Your task to perform on an android device: Do I have any events tomorrow? Image 0: 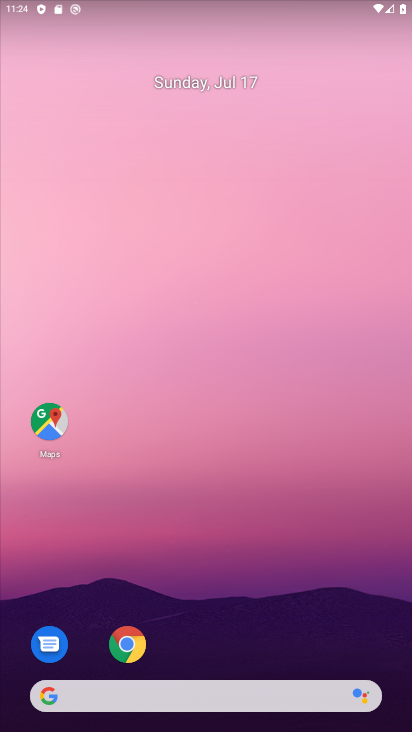
Step 0: drag from (392, 622) to (341, 77)
Your task to perform on an android device: Do I have any events tomorrow? Image 1: 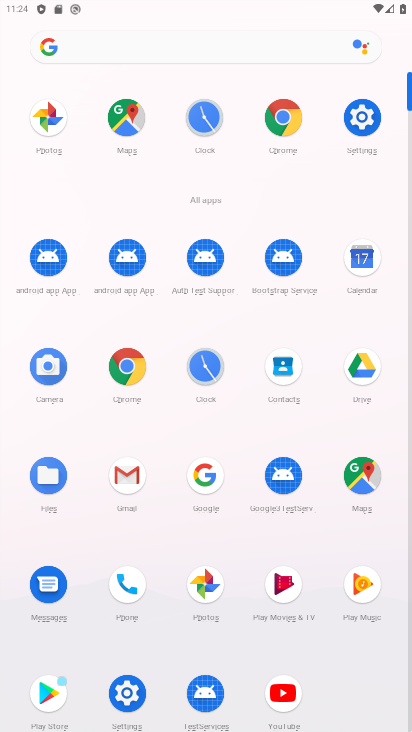
Step 1: click (369, 250)
Your task to perform on an android device: Do I have any events tomorrow? Image 2: 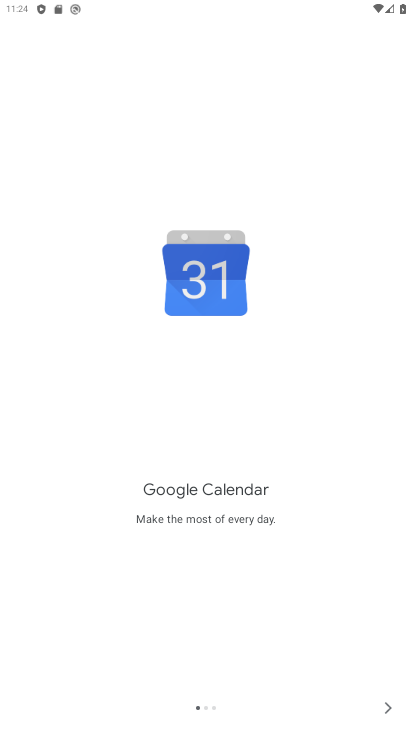
Step 2: click (375, 701)
Your task to perform on an android device: Do I have any events tomorrow? Image 3: 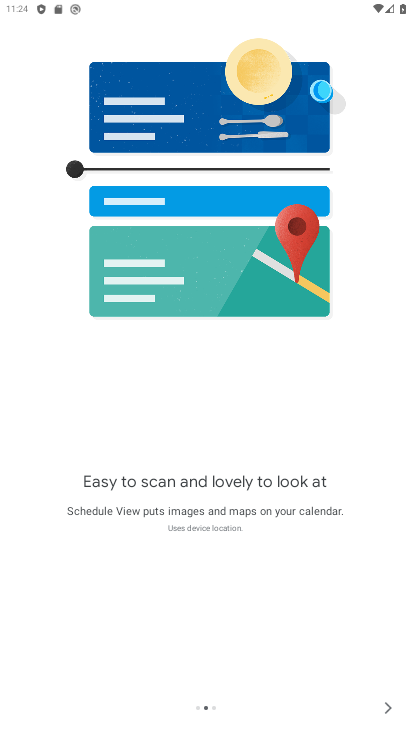
Step 3: click (375, 698)
Your task to perform on an android device: Do I have any events tomorrow? Image 4: 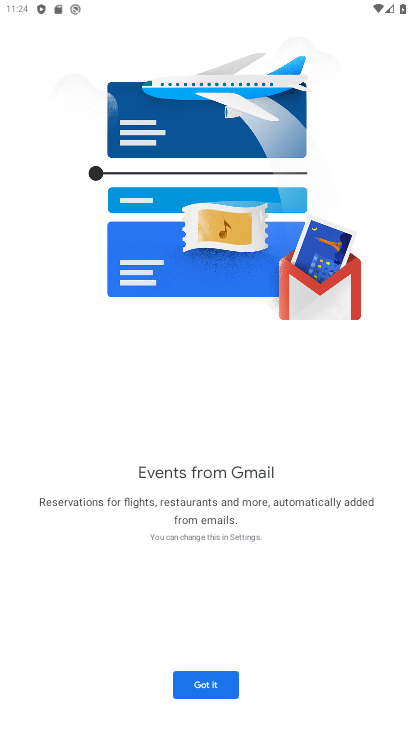
Step 4: click (188, 672)
Your task to perform on an android device: Do I have any events tomorrow? Image 5: 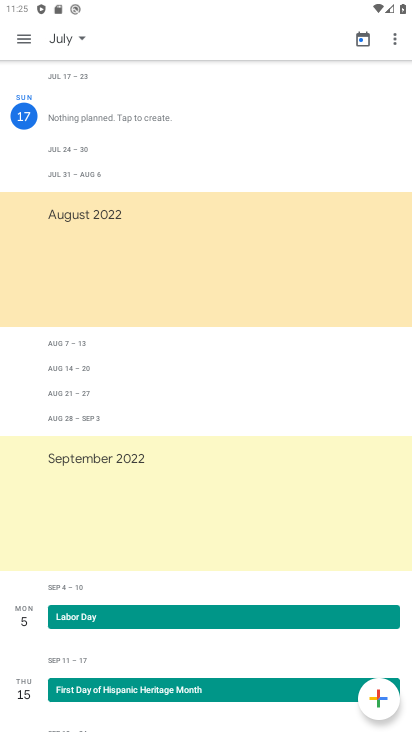
Step 5: task complete